Your task to perform on an android device: toggle translation in the chrome app Image 0: 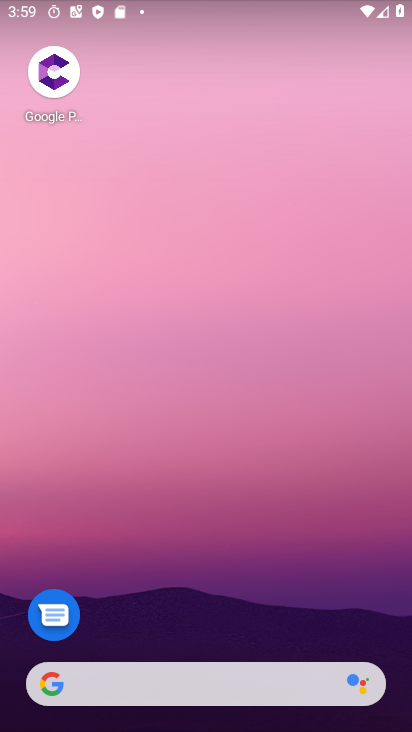
Step 0: drag from (352, 602) to (98, 90)
Your task to perform on an android device: toggle translation in the chrome app Image 1: 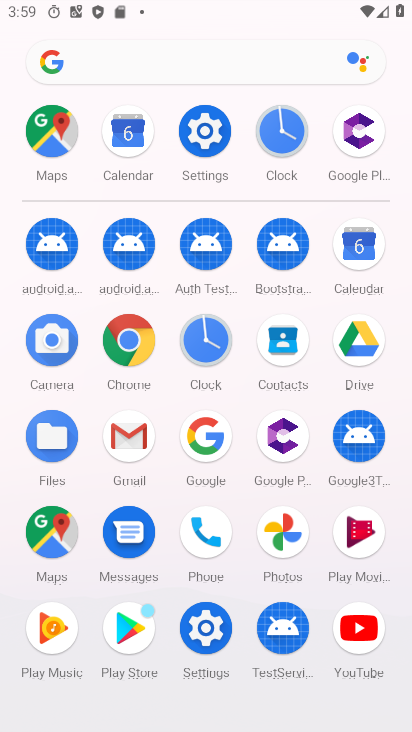
Step 1: click (119, 334)
Your task to perform on an android device: toggle translation in the chrome app Image 2: 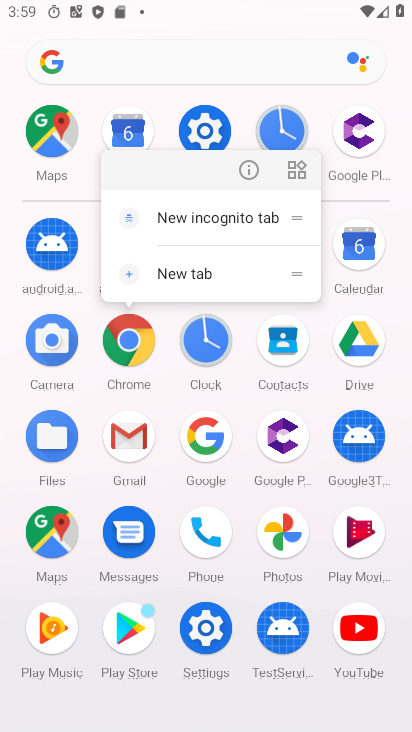
Step 2: click (135, 350)
Your task to perform on an android device: toggle translation in the chrome app Image 3: 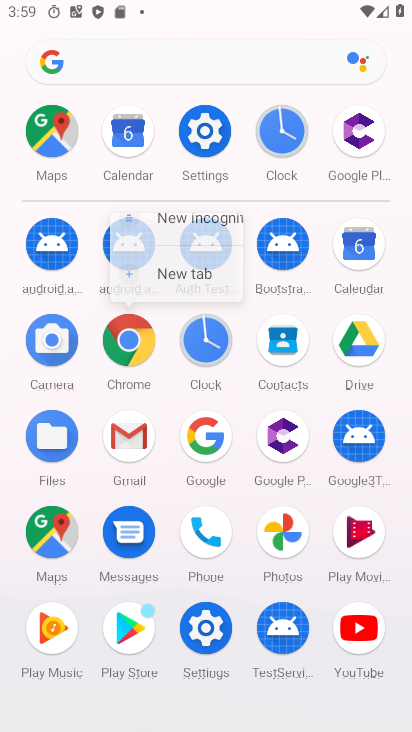
Step 3: click (135, 349)
Your task to perform on an android device: toggle translation in the chrome app Image 4: 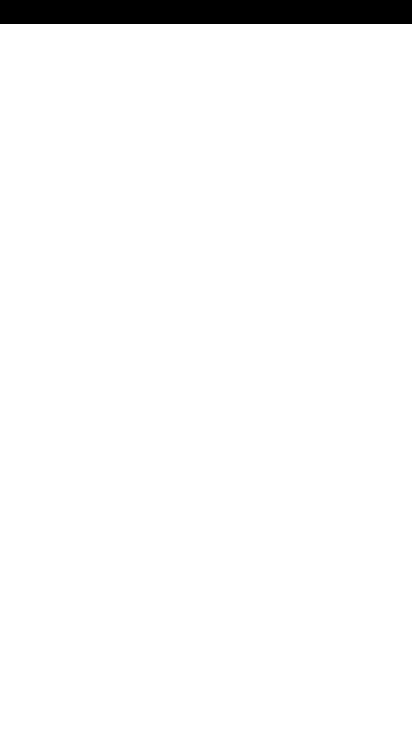
Step 4: click (135, 348)
Your task to perform on an android device: toggle translation in the chrome app Image 5: 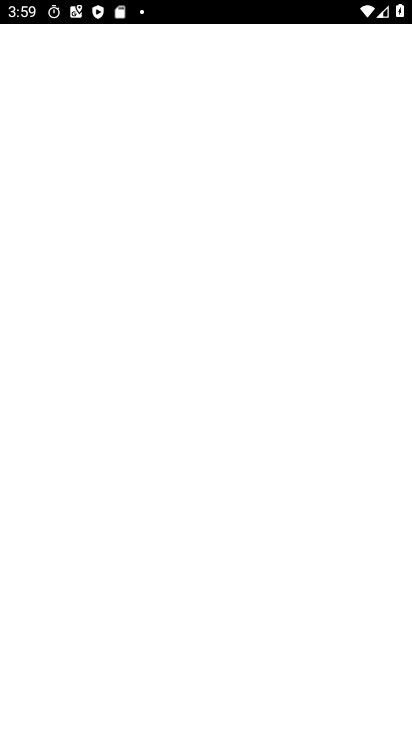
Step 5: click (135, 348)
Your task to perform on an android device: toggle translation in the chrome app Image 6: 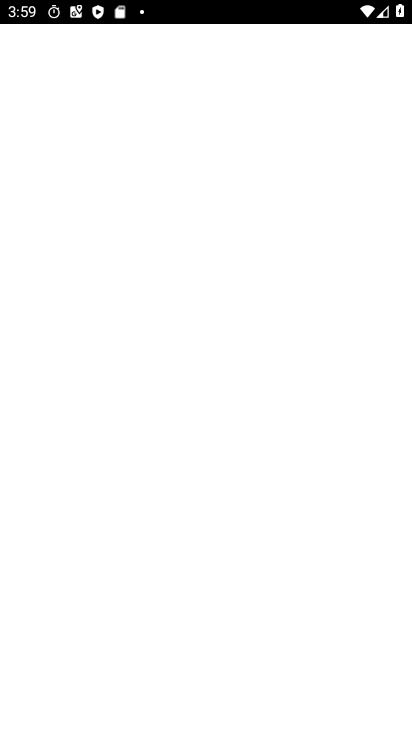
Step 6: click (135, 348)
Your task to perform on an android device: toggle translation in the chrome app Image 7: 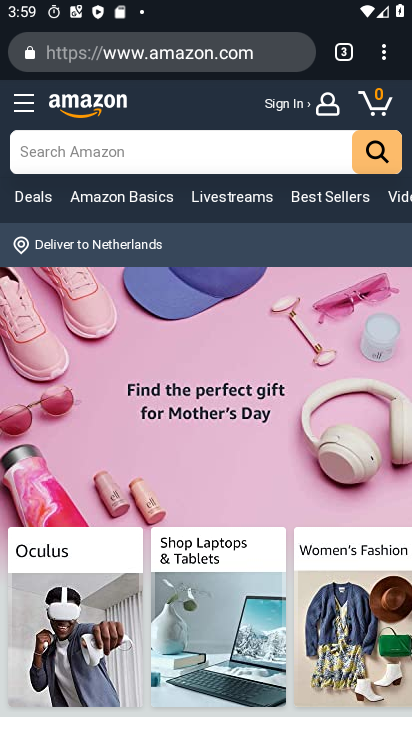
Step 7: drag from (380, 54) to (203, 624)
Your task to perform on an android device: toggle translation in the chrome app Image 8: 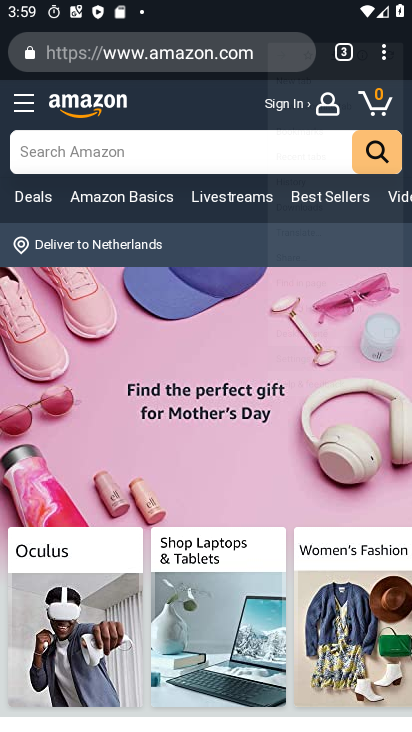
Step 8: click (203, 624)
Your task to perform on an android device: toggle translation in the chrome app Image 9: 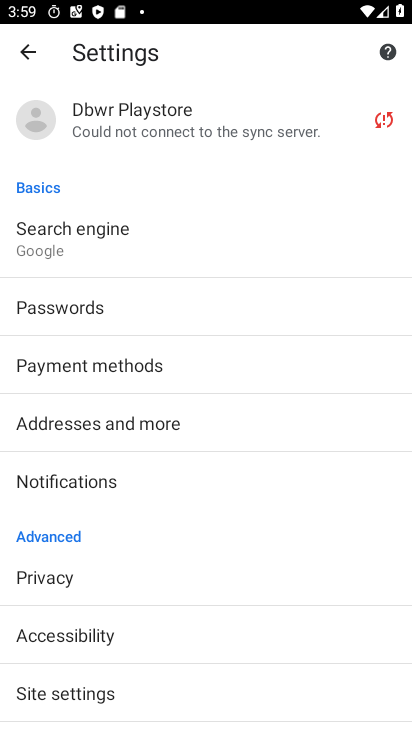
Step 9: click (51, 686)
Your task to perform on an android device: toggle translation in the chrome app Image 10: 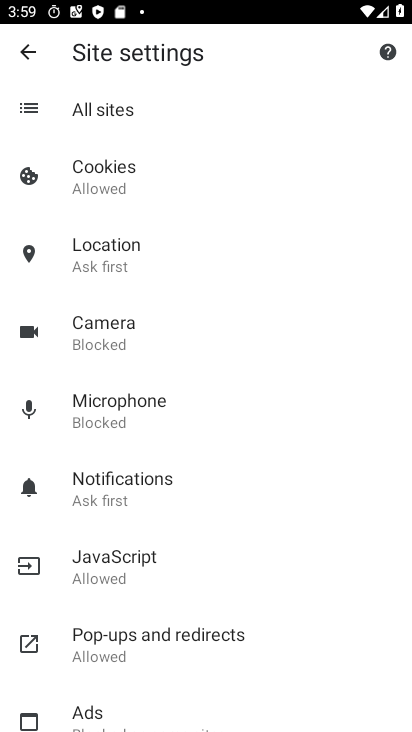
Step 10: drag from (184, 533) to (142, 157)
Your task to perform on an android device: toggle translation in the chrome app Image 11: 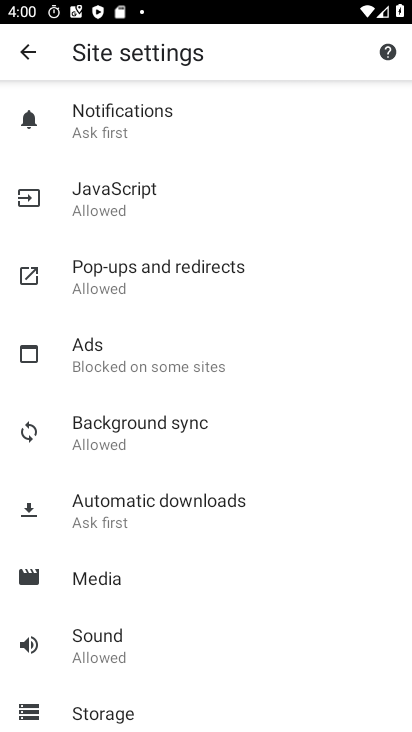
Step 11: click (27, 50)
Your task to perform on an android device: toggle translation in the chrome app Image 12: 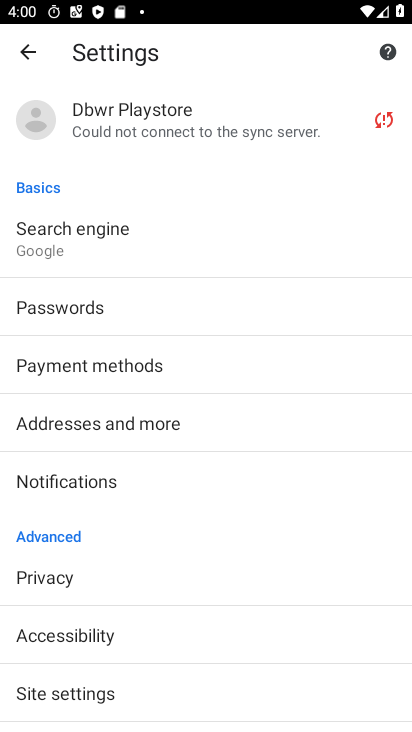
Step 12: drag from (90, 653) to (56, 231)
Your task to perform on an android device: toggle translation in the chrome app Image 13: 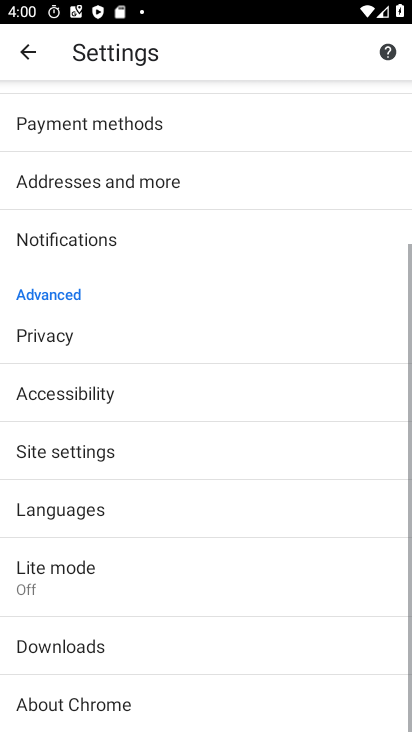
Step 13: click (53, 503)
Your task to perform on an android device: toggle translation in the chrome app Image 14: 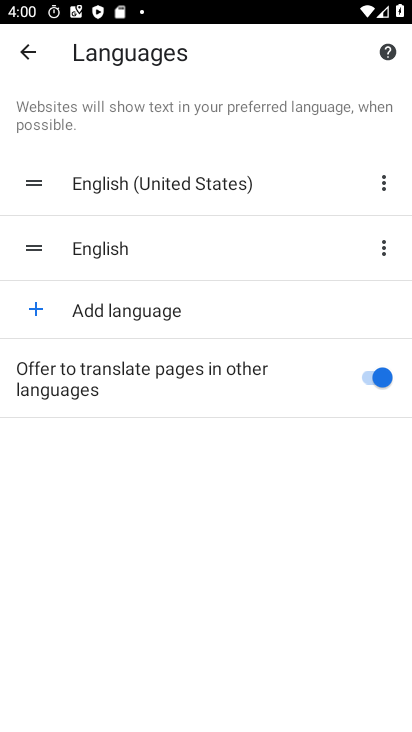
Step 14: click (387, 383)
Your task to perform on an android device: toggle translation in the chrome app Image 15: 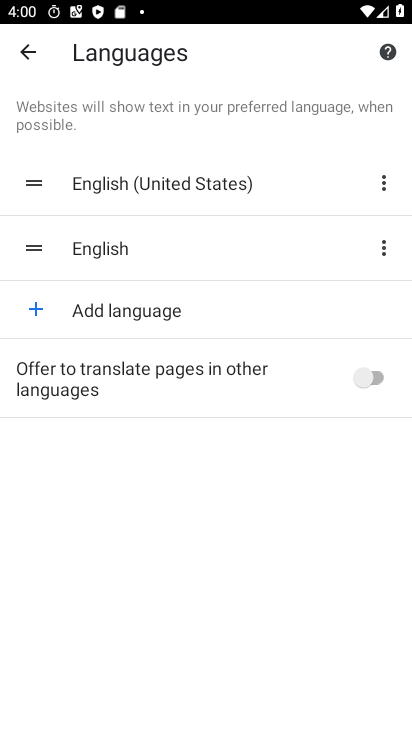
Step 15: task complete